Your task to perform on an android device: toggle wifi Image 0: 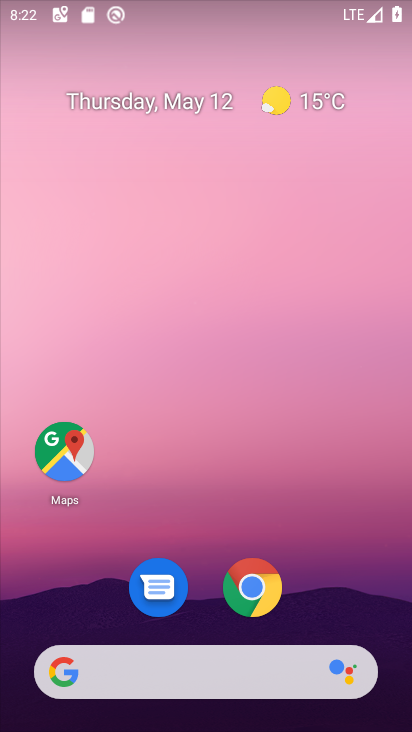
Step 0: drag from (260, 5) to (288, 563)
Your task to perform on an android device: toggle wifi Image 1: 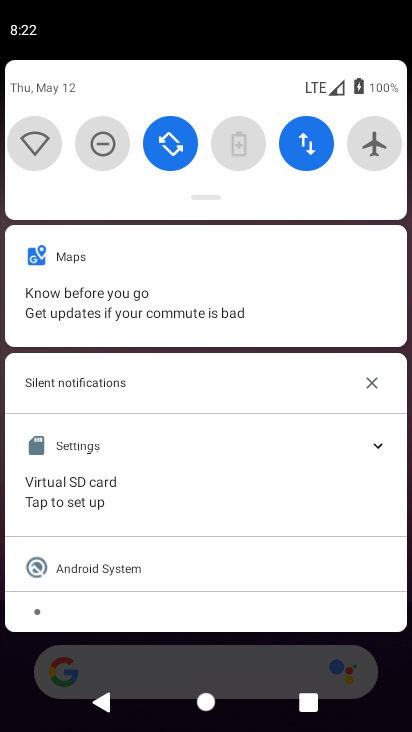
Step 1: click (37, 139)
Your task to perform on an android device: toggle wifi Image 2: 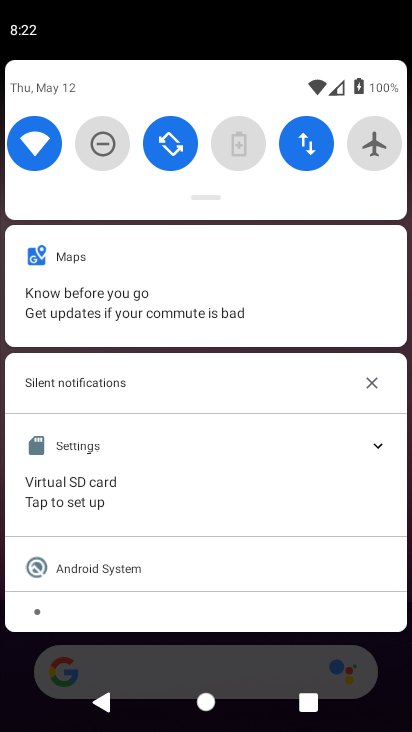
Step 2: task complete